Your task to perform on an android device: open app "Move to iOS" (install if not already installed) and enter user name: "Decca@icloud.com" and password: "reabbreviate" Image 0: 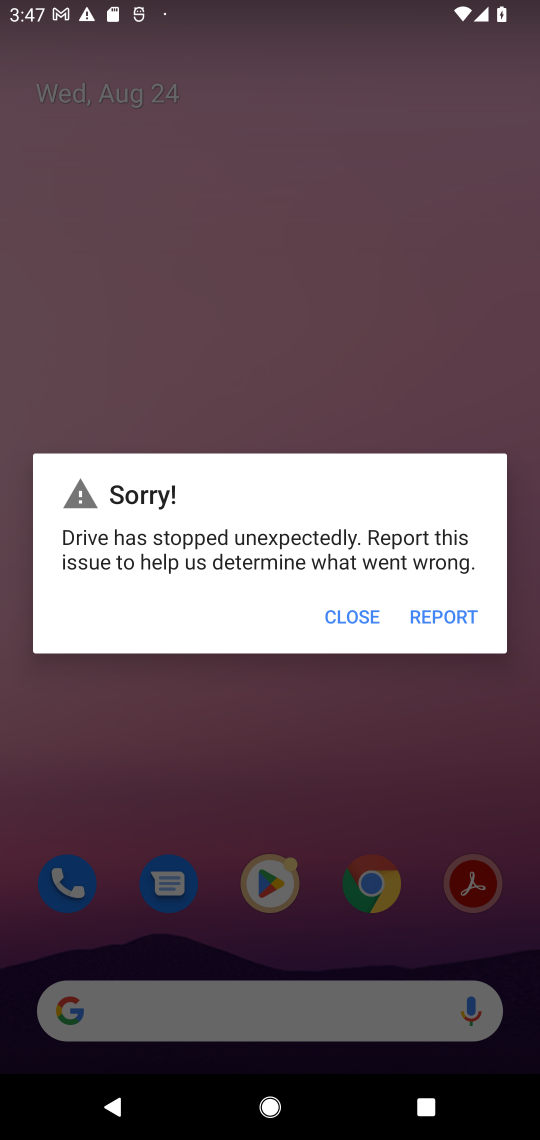
Step 0: click (335, 612)
Your task to perform on an android device: open app "Move to iOS" (install if not already installed) and enter user name: "Decca@icloud.com" and password: "reabbreviate" Image 1: 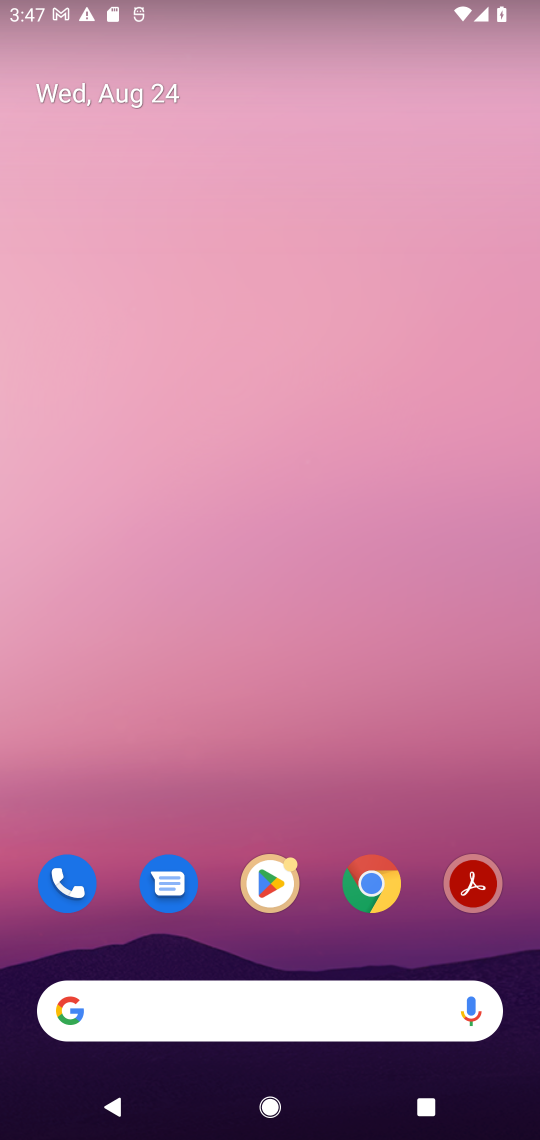
Step 1: drag from (252, 900) to (165, 106)
Your task to perform on an android device: open app "Move to iOS" (install if not already installed) and enter user name: "Decca@icloud.com" and password: "reabbreviate" Image 2: 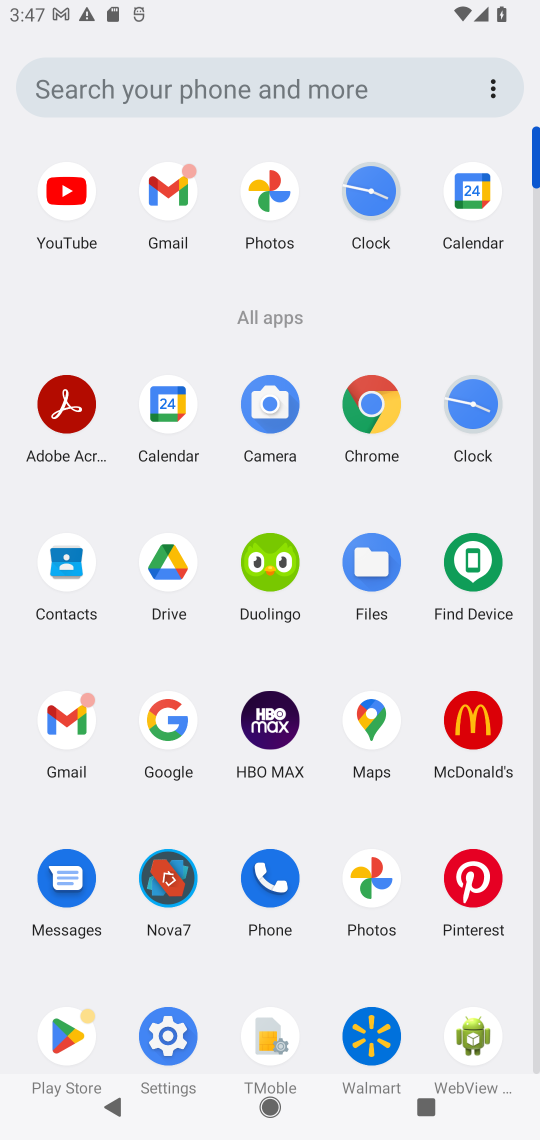
Step 2: click (74, 1038)
Your task to perform on an android device: open app "Move to iOS" (install if not already installed) and enter user name: "Decca@icloud.com" and password: "reabbreviate" Image 3: 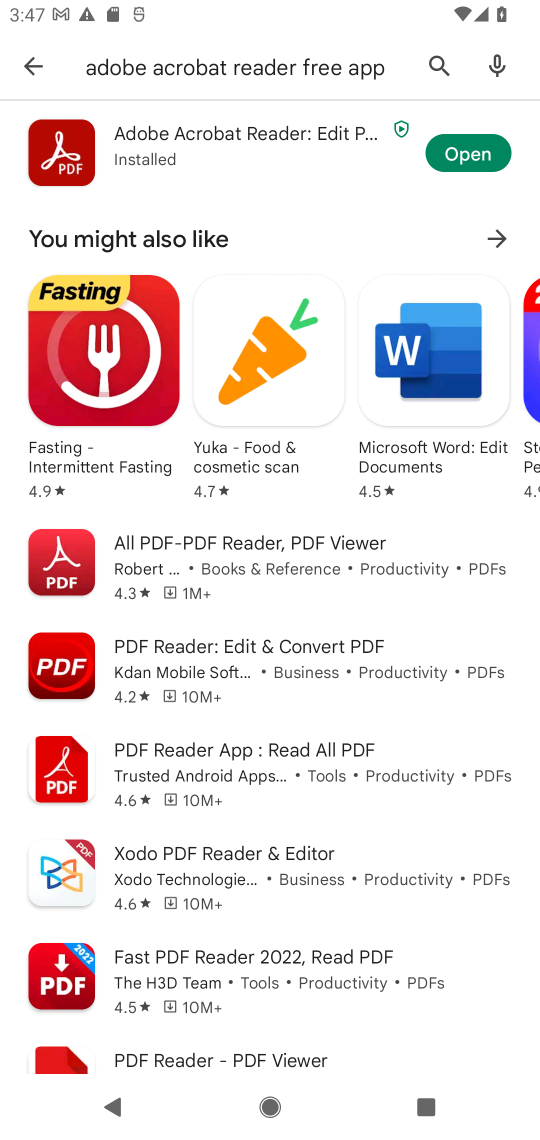
Step 3: click (438, 63)
Your task to perform on an android device: open app "Move to iOS" (install if not already installed) and enter user name: "Decca@icloud.com" and password: "reabbreviate" Image 4: 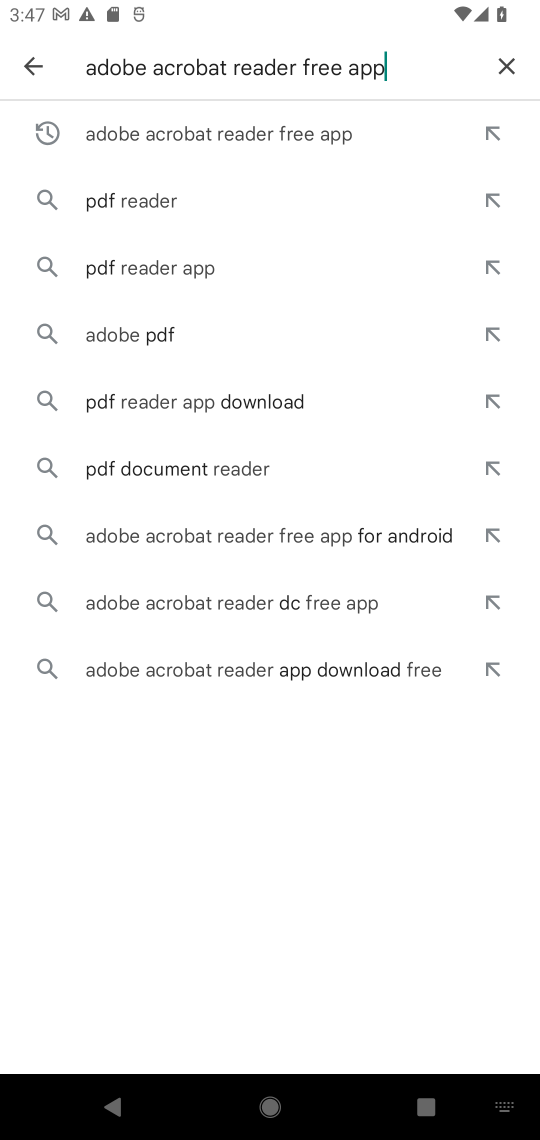
Step 4: click (496, 72)
Your task to perform on an android device: open app "Move to iOS" (install if not already installed) and enter user name: "Decca@icloud.com" and password: "reabbreviate" Image 5: 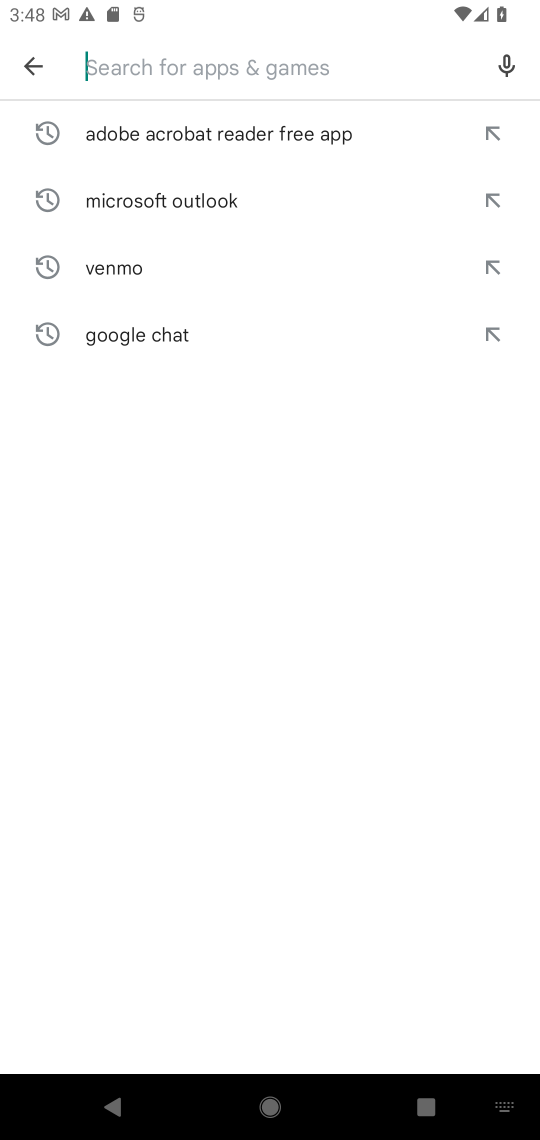
Step 5: type "Move to iOS"
Your task to perform on an android device: open app "Move to iOS" (install if not already installed) and enter user name: "Decca@icloud.com" and password: "reabbreviate" Image 6: 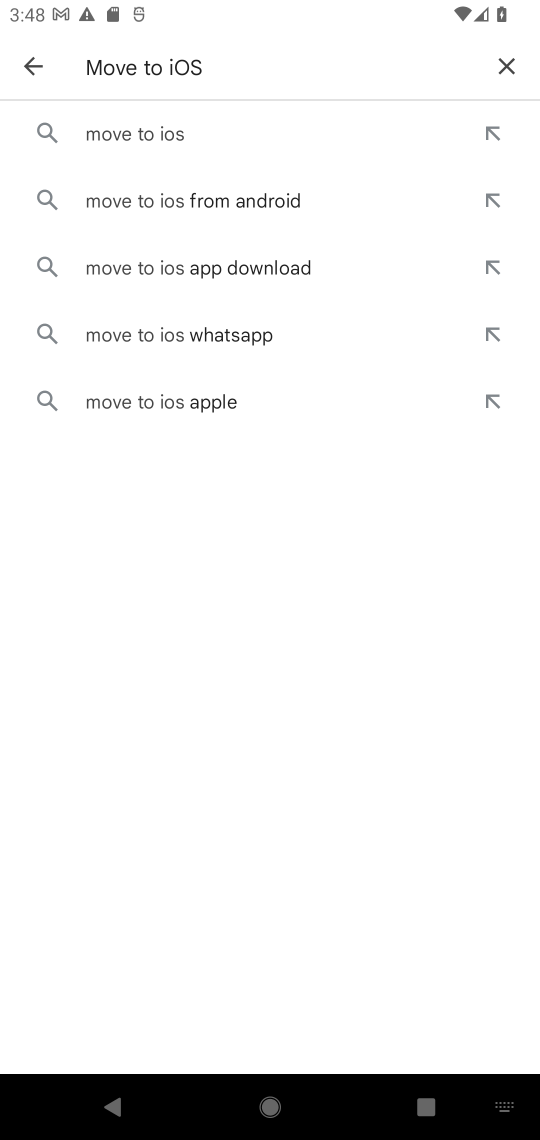
Step 6: click (120, 131)
Your task to perform on an android device: open app "Move to iOS" (install if not already installed) and enter user name: "Decca@icloud.com" and password: "reabbreviate" Image 7: 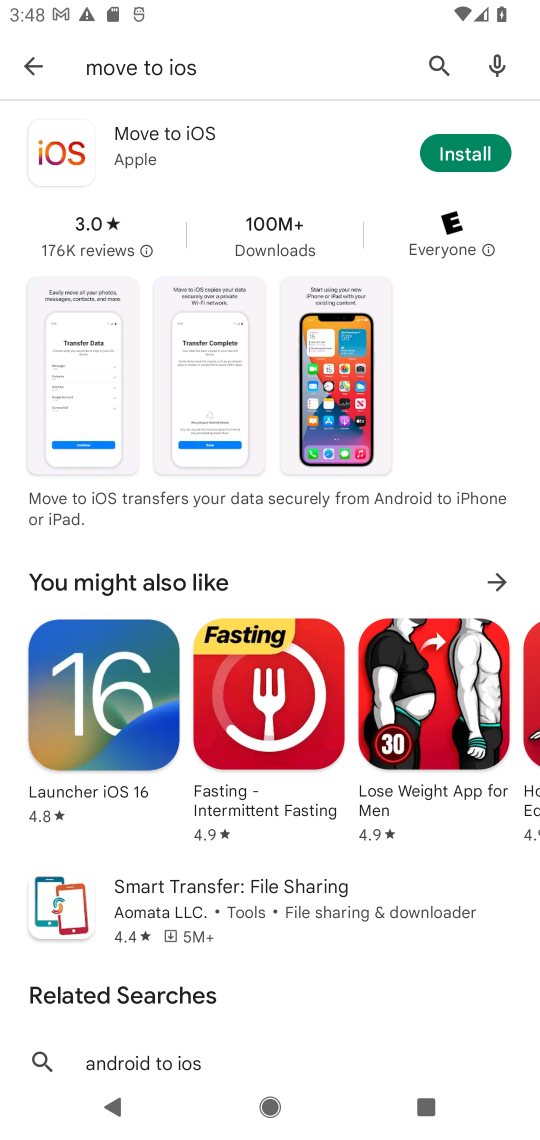
Step 7: click (488, 148)
Your task to perform on an android device: open app "Move to iOS" (install if not already installed) and enter user name: "Decca@icloud.com" and password: "reabbreviate" Image 8: 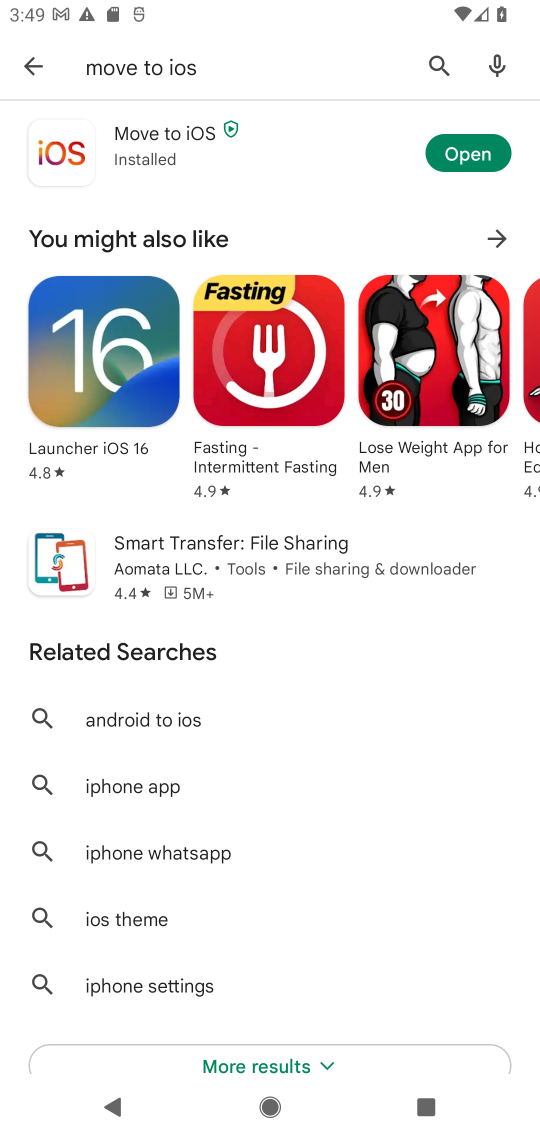
Step 8: click (482, 156)
Your task to perform on an android device: open app "Move to iOS" (install if not already installed) and enter user name: "Decca@icloud.com" and password: "reabbreviate" Image 9: 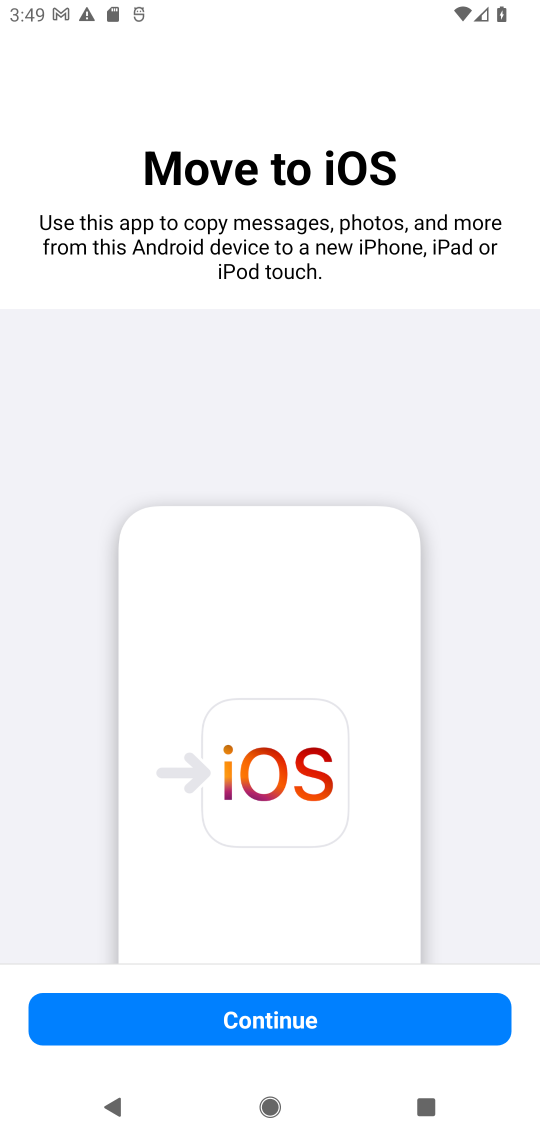
Step 9: task complete